Your task to perform on an android device: change text size in settings app Image 0: 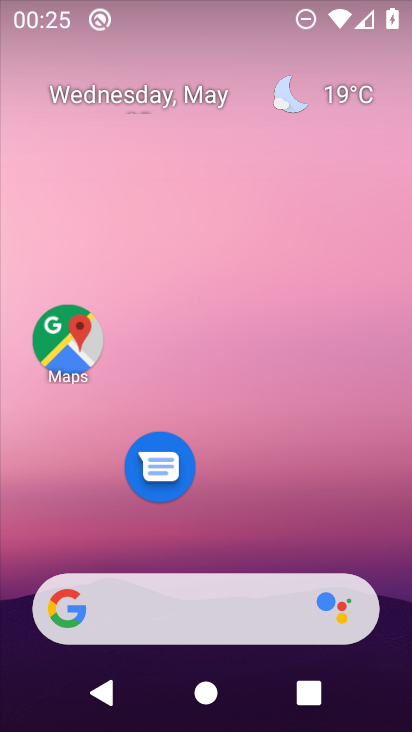
Step 0: drag from (199, 541) to (265, 142)
Your task to perform on an android device: change text size in settings app Image 1: 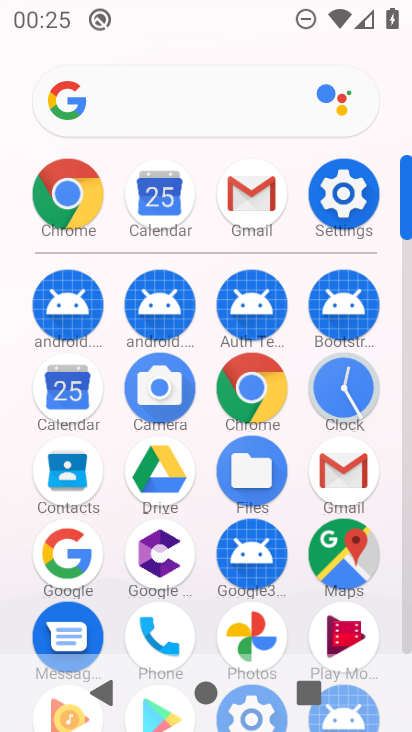
Step 1: click (334, 196)
Your task to perform on an android device: change text size in settings app Image 2: 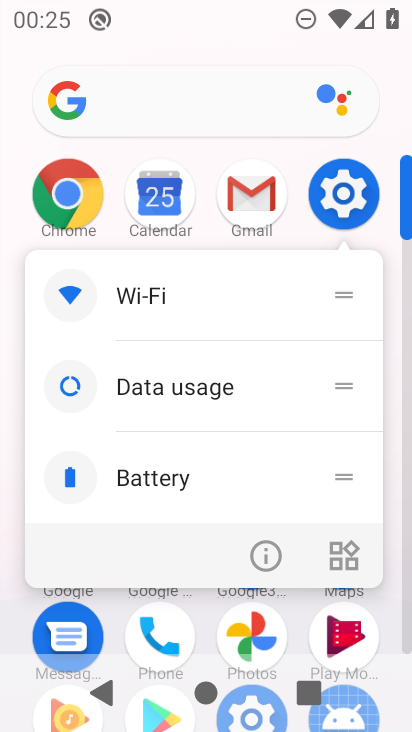
Step 2: click (254, 556)
Your task to perform on an android device: change text size in settings app Image 3: 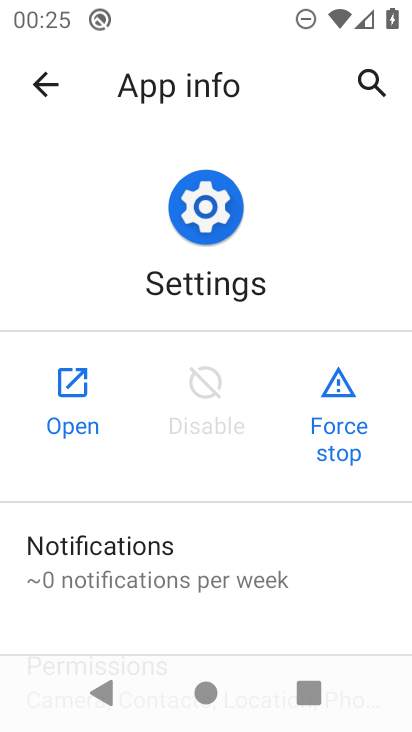
Step 3: click (78, 378)
Your task to perform on an android device: change text size in settings app Image 4: 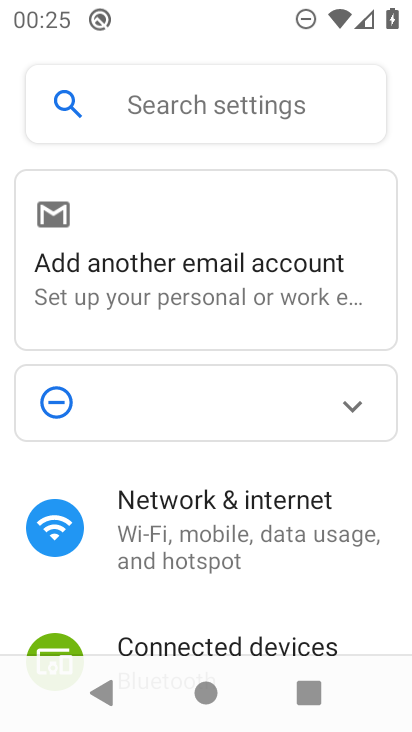
Step 4: drag from (252, 560) to (293, 237)
Your task to perform on an android device: change text size in settings app Image 5: 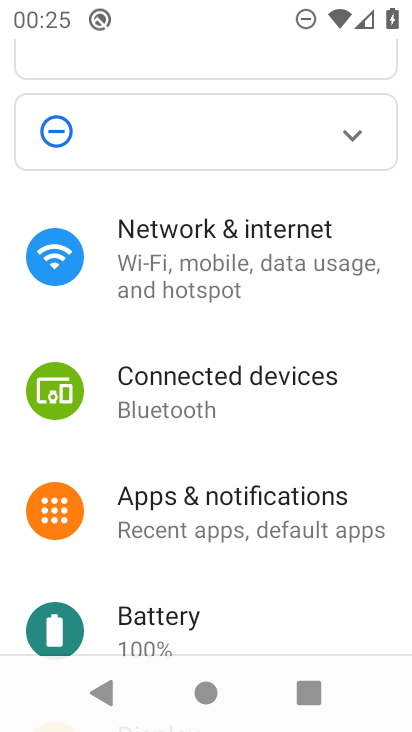
Step 5: drag from (209, 525) to (255, 210)
Your task to perform on an android device: change text size in settings app Image 6: 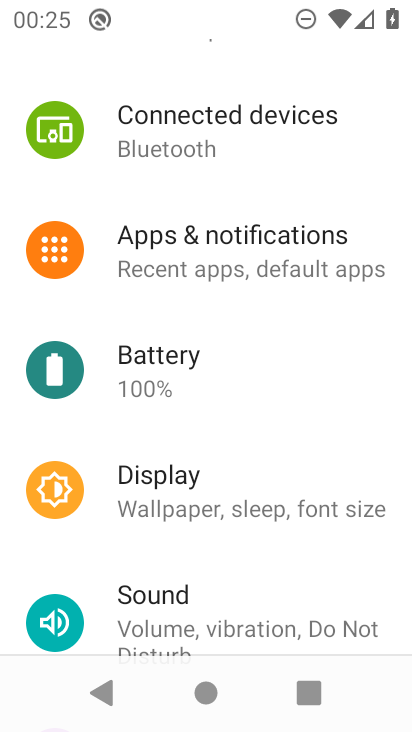
Step 6: click (206, 510)
Your task to perform on an android device: change text size in settings app Image 7: 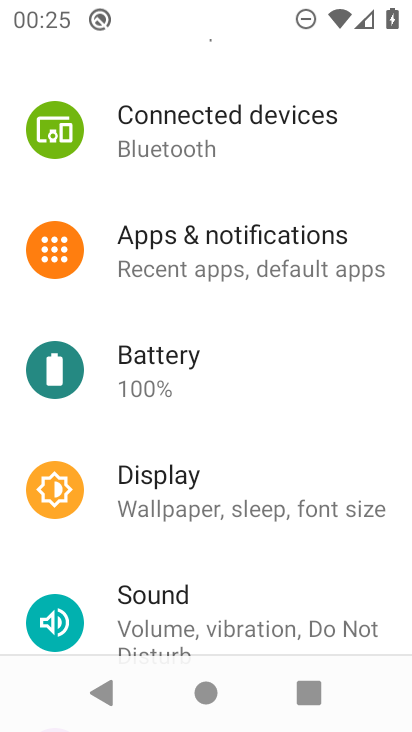
Step 7: click (206, 510)
Your task to perform on an android device: change text size in settings app Image 8: 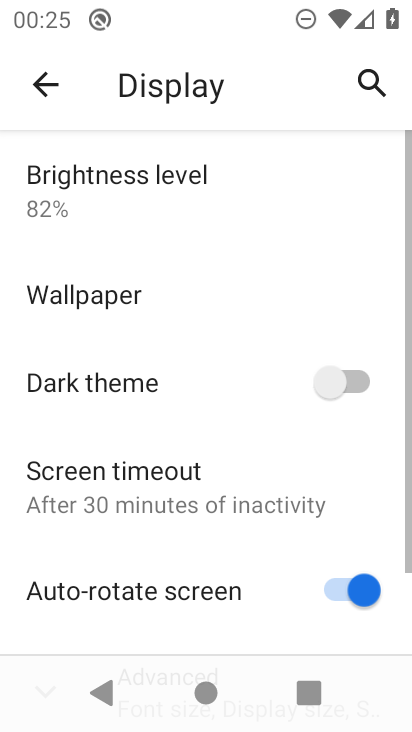
Step 8: drag from (205, 509) to (261, 197)
Your task to perform on an android device: change text size in settings app Image 9: 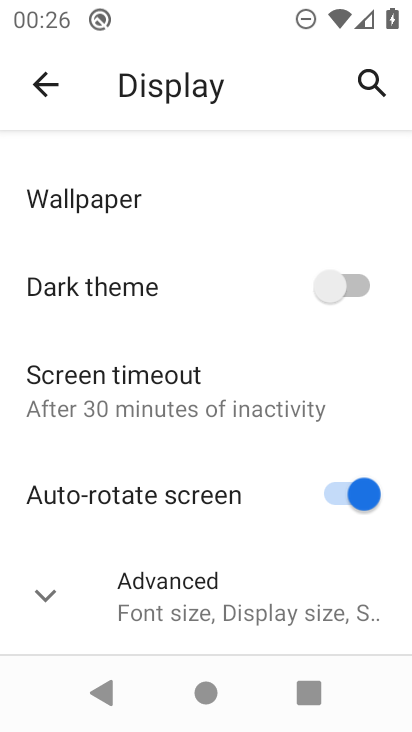
Step 9: click (137, 570)
Your task to perform on an android device: change text size in settings app Image 10: 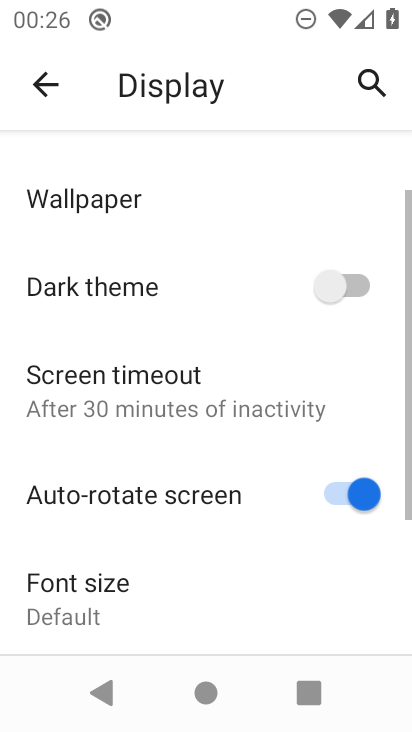
Step 10: drag from (137, 570) to (201, 188)
Your task to perform on an android device: change text size in settings app Image 11: 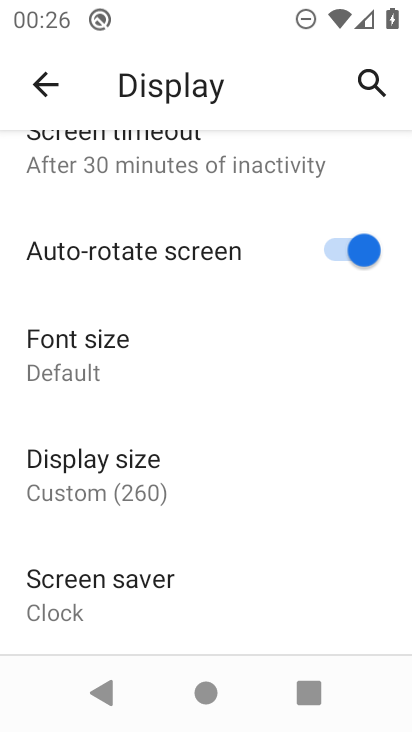
Step 11: drag from (140, 488) to (205, 541)
Your task to perform on an android device: change text size in settings app Image 12: 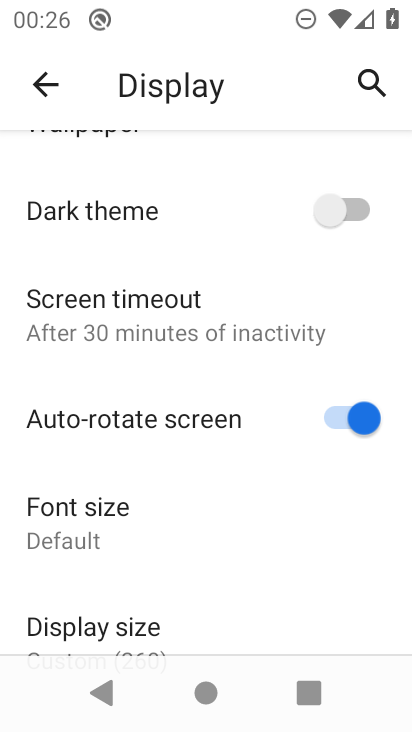
Step 12: click (157, 385)
Your task to perform on an android device: change text size in settings app Image 13: 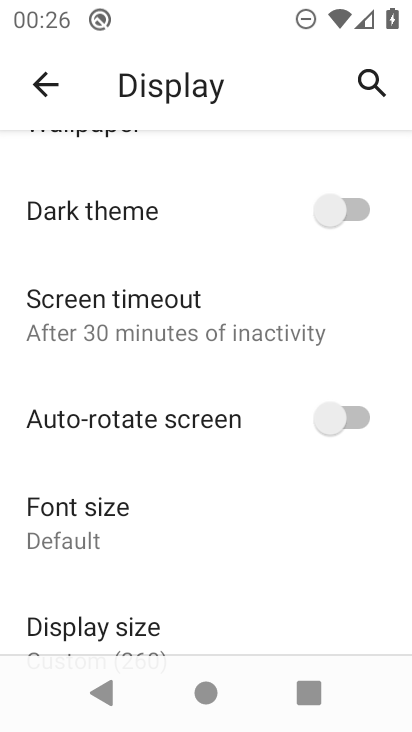
Step 13: click (125, 373)
Your task to perform on an android device: change text size in settings app Image 14: 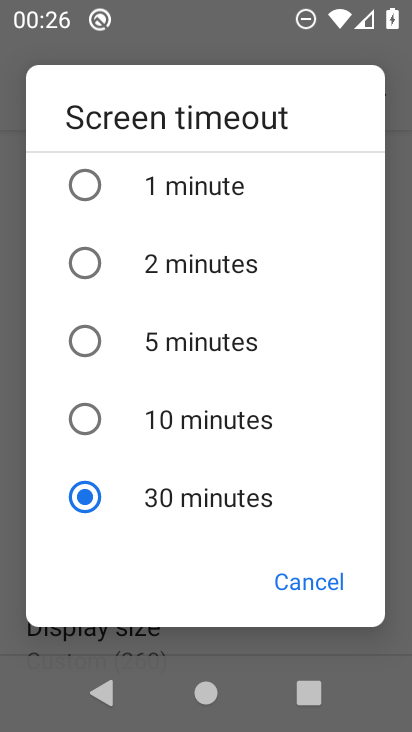
Step 14: click (288, 559)
Your task to perform on an android device: change text size in settings app Image 15: 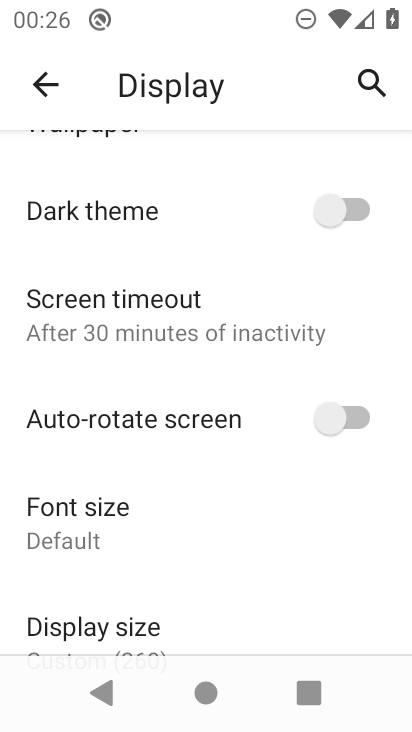
Step 15: click (162, 529)
Your task to perform on an android device: change text size in settings app Image 16: 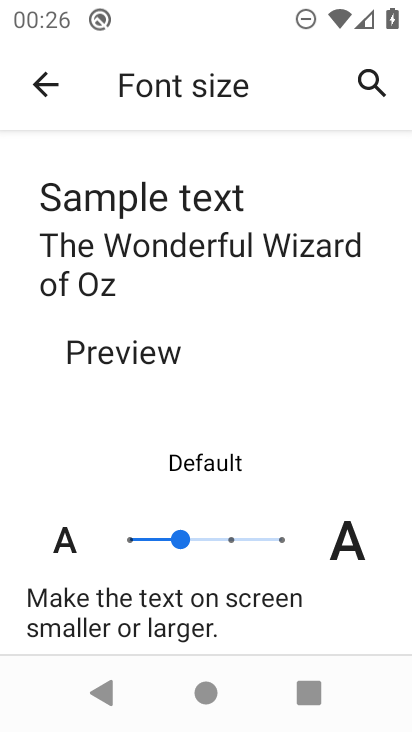
Step 16: click (136, 543)
Your task to perform on an android device: change text size in settings app Image 17: 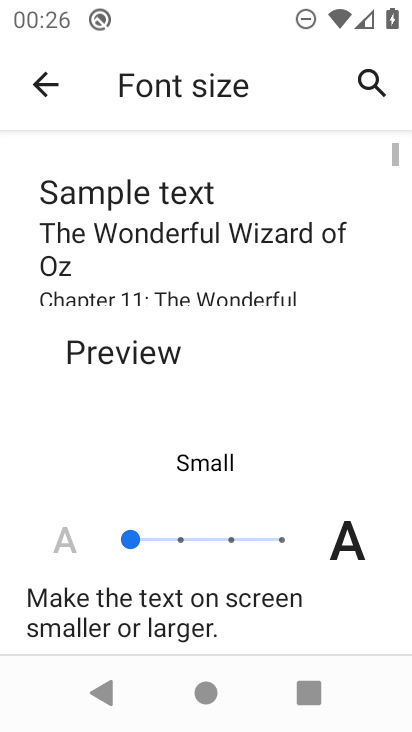
Step 17: task complete